Your task to perform on an android device: Go to display settings Image 0: 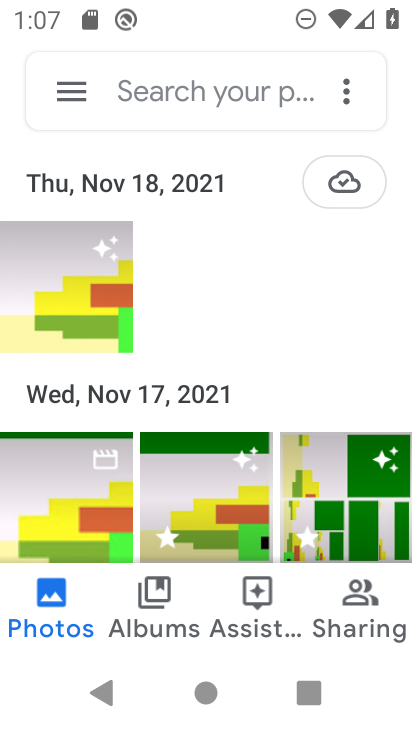
Step 0: press home button
Your task to perform on an android device: Go to display settings Image 1: 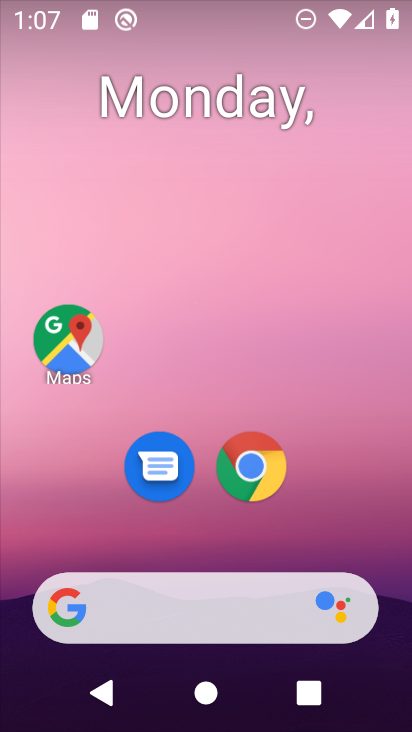
Step 1: drag from (179, 492) to (288, 7)
Your task to perform on an android device: Go to display settings Image 2: 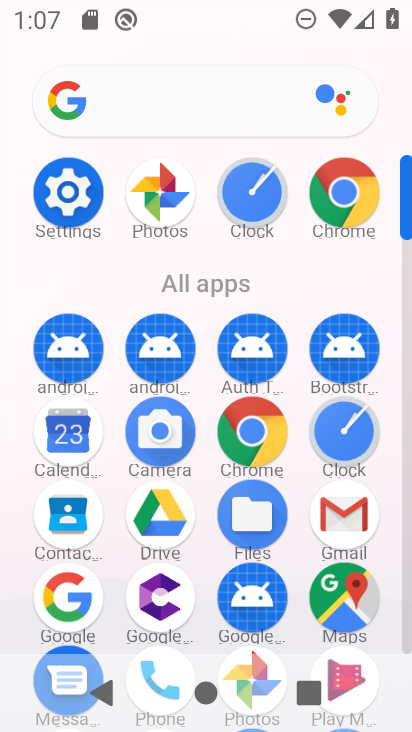
Step 2: click (63, 196)
Your task to perform on an android device: Go to display settings Image 3: 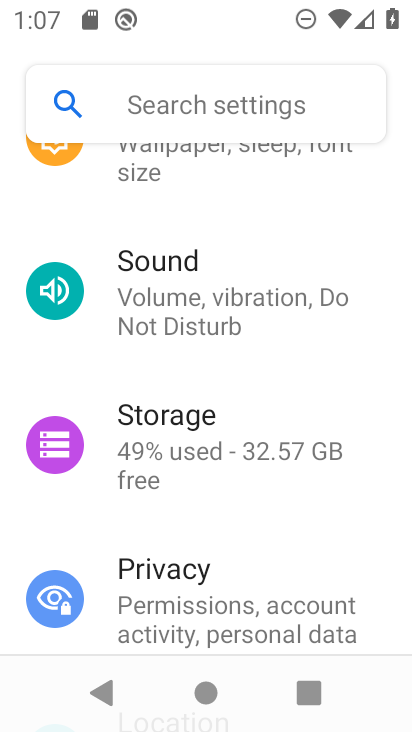
Step 3: drag from (270, 273) to (243, 663)
Your task to perform on an android device: Go to display settings Image 4: 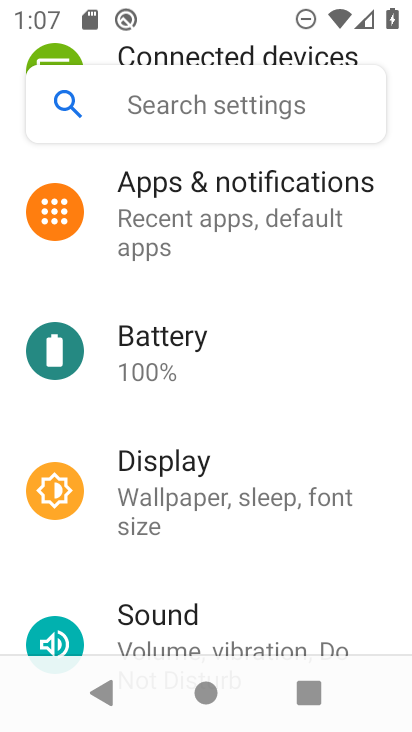
Step 4: click (185, 496)
Your task to perform on an android device: Go to display settings Image 5: 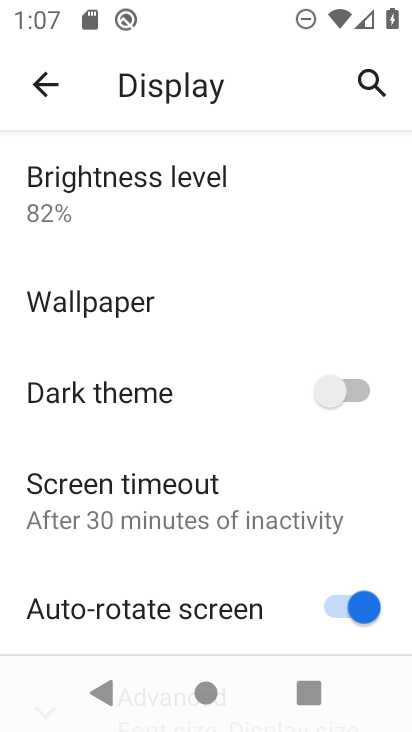
Step 5: task complete